Your task to perform on an android device: remove spam from my inbox in the gmail app Image 0: 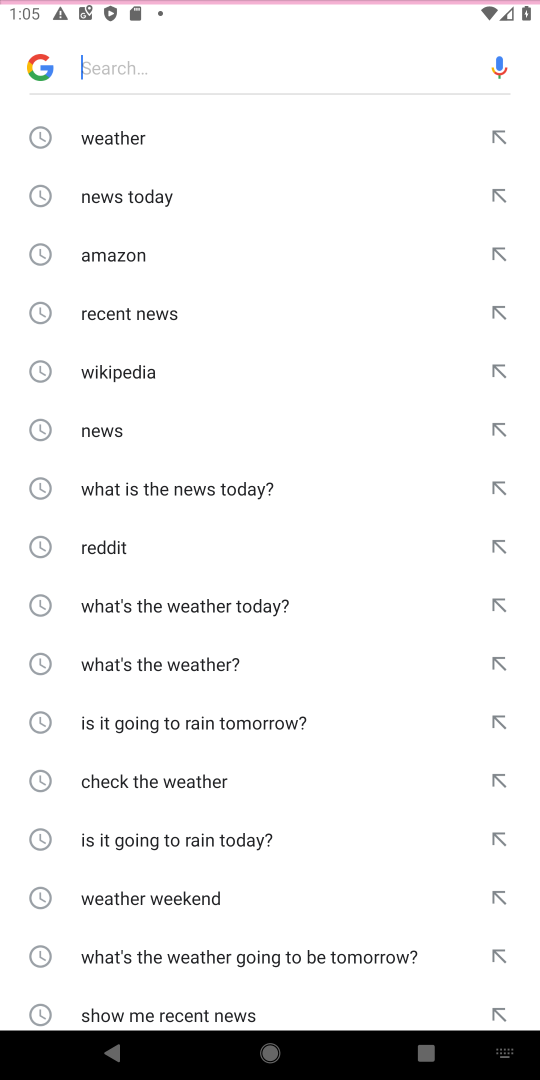
Step 0: press home button
Your task to perform on an android device: remove spam from my inbox in the gmail app Image 1: 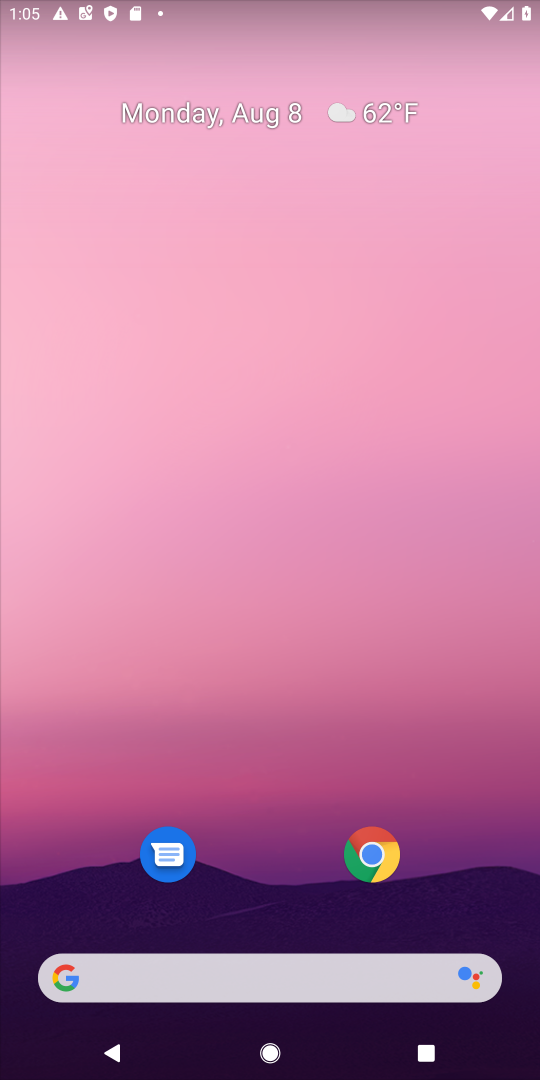
Step 1: drag from (278, 876) to (311, 44)
Your task to perform on an android device: remove spam from my inbox in the gmail app Image 2: 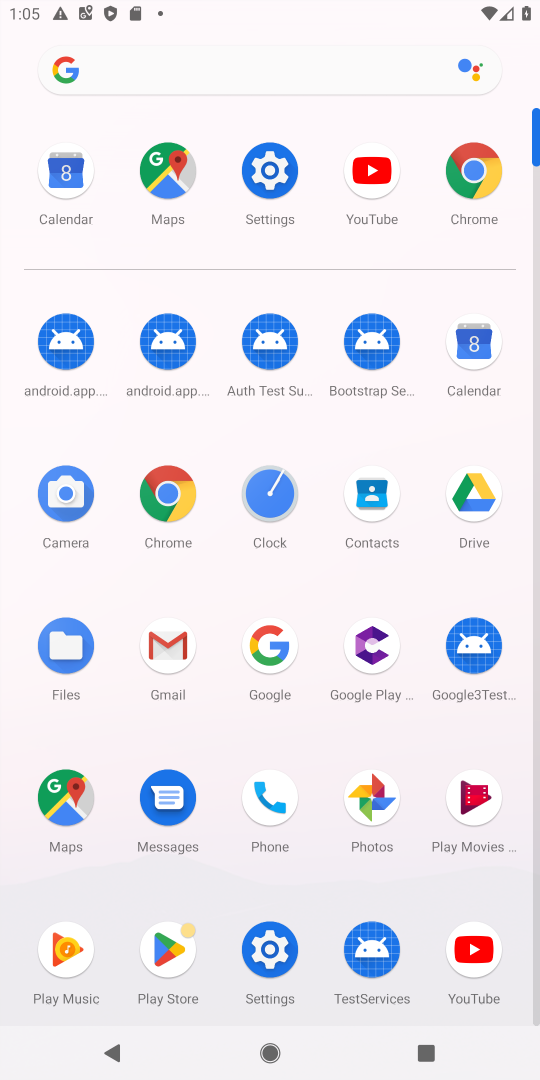
Step 2: click (163, 656)
Your task to perform on an android device: remove spam from my inbox in the gmail app Image 3: 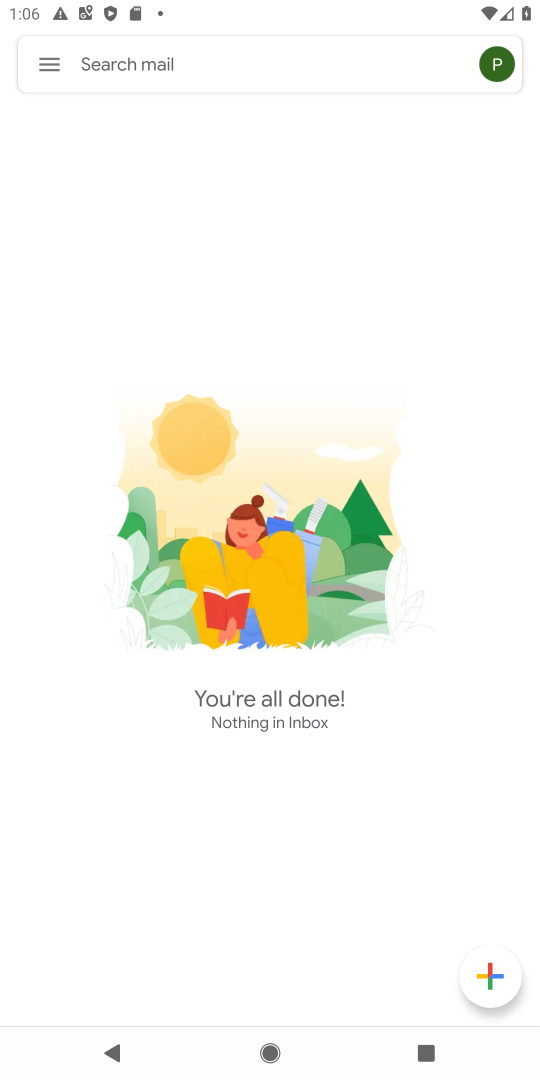
Step 3: click (499, 68)
Your task to perform on an android device: remove spam from my inbox in the gmail app Image 4: 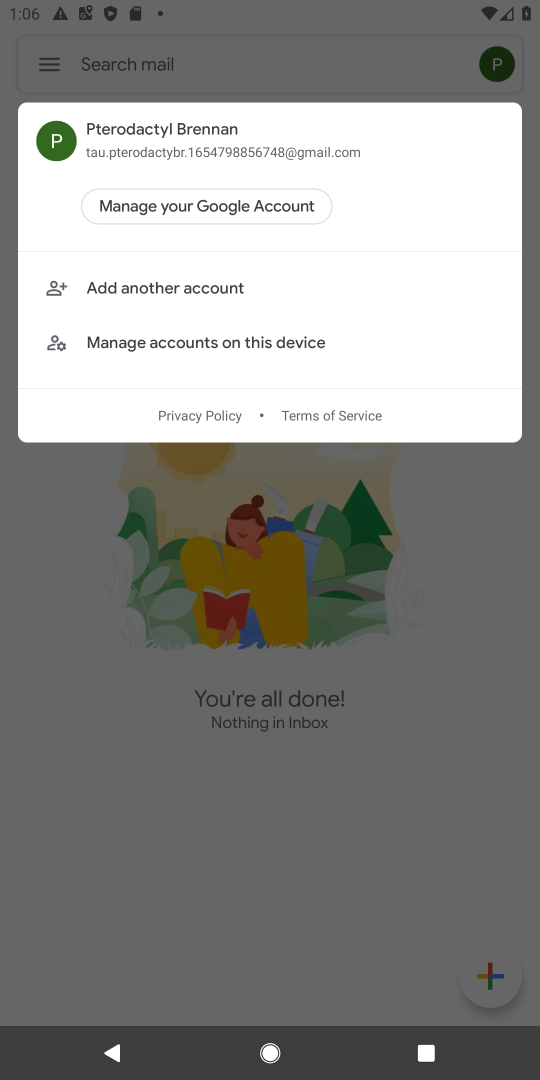
Step 4: click (63, 56)
Your task to perform on an android device: remove spam from my inbox in the gmail app Image 5: 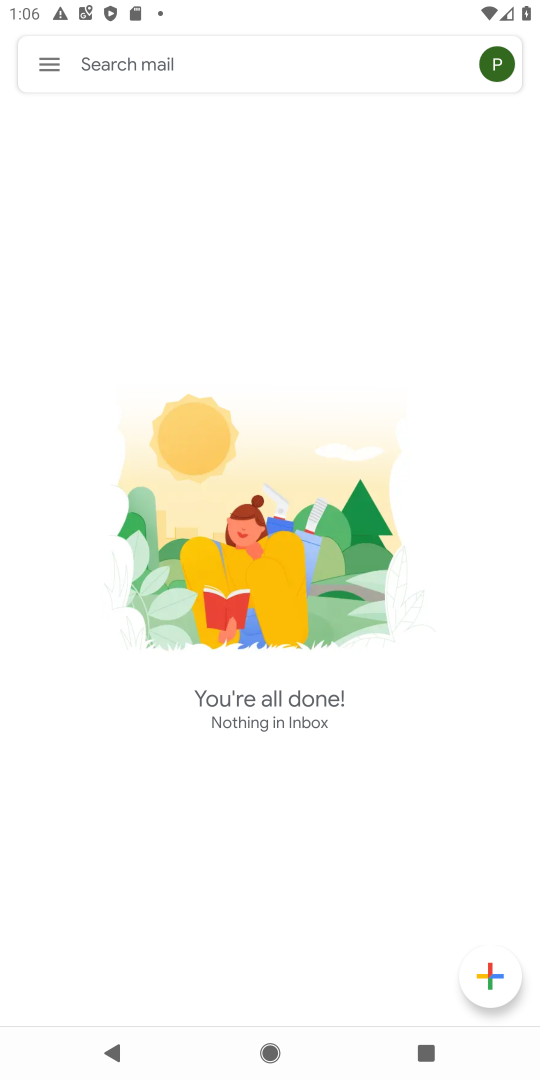
Step 5: click (44, 60)
Your task to perform on an android device: remove spam from my inbox in the gmail app Image 6: 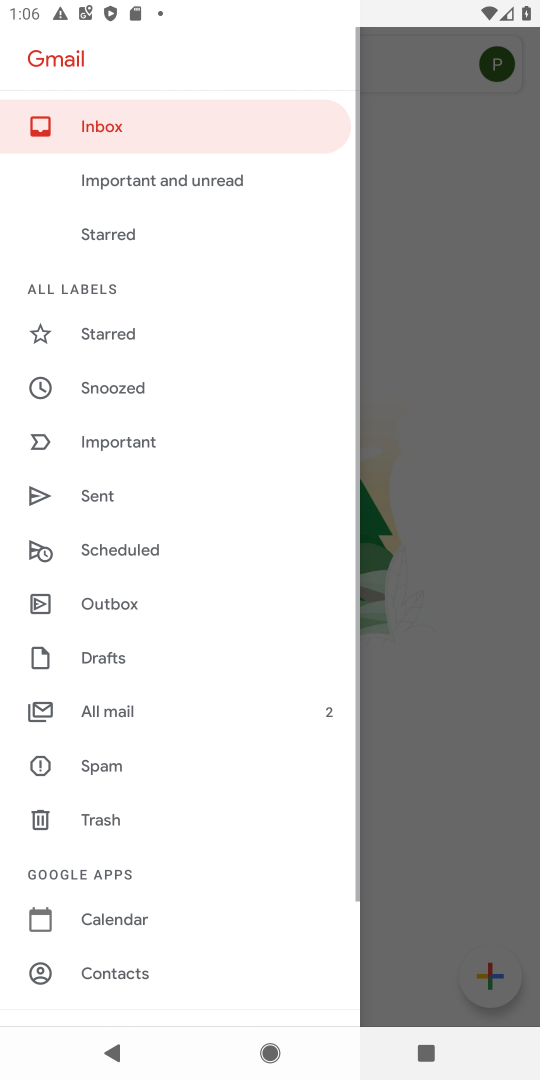
Step 6: drag from (45, 61) to (125, 598)
Your task to perform on an android device: remove spam from my inbox in the gmail app Image 7: 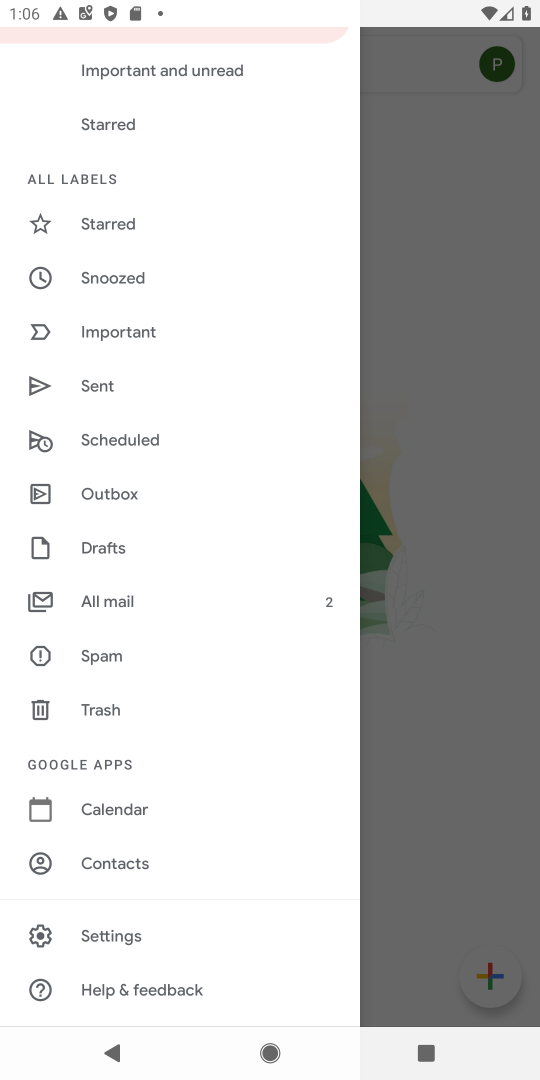
Step 7: click (125, 598)
Your task to perform on an android device: remove spam from my inbox in the gmail app Image 8: 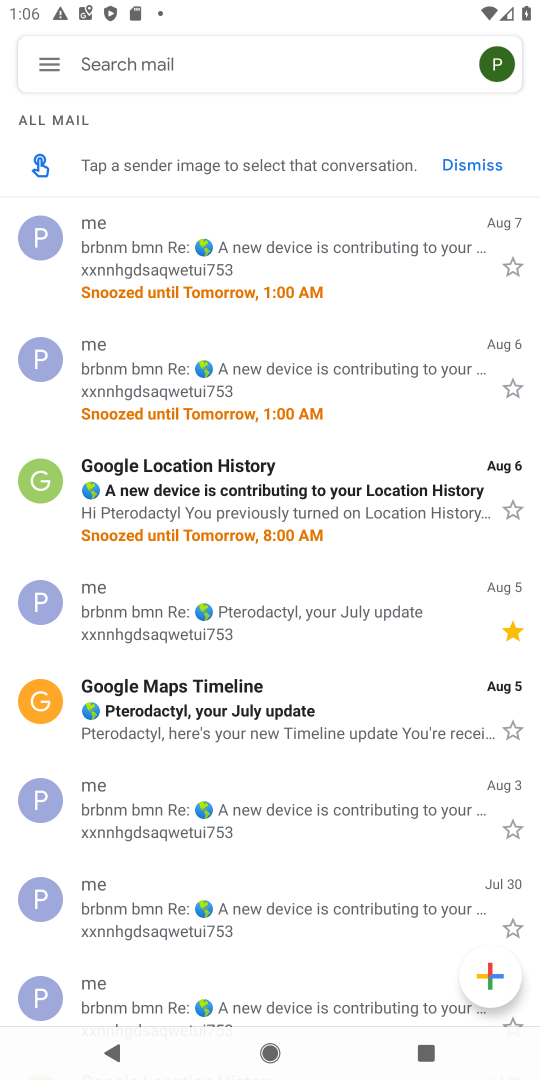
Step 8: click (274, 266)
Your task to perform on an android device: remove spam from my inbox in the gmail app Image 9: 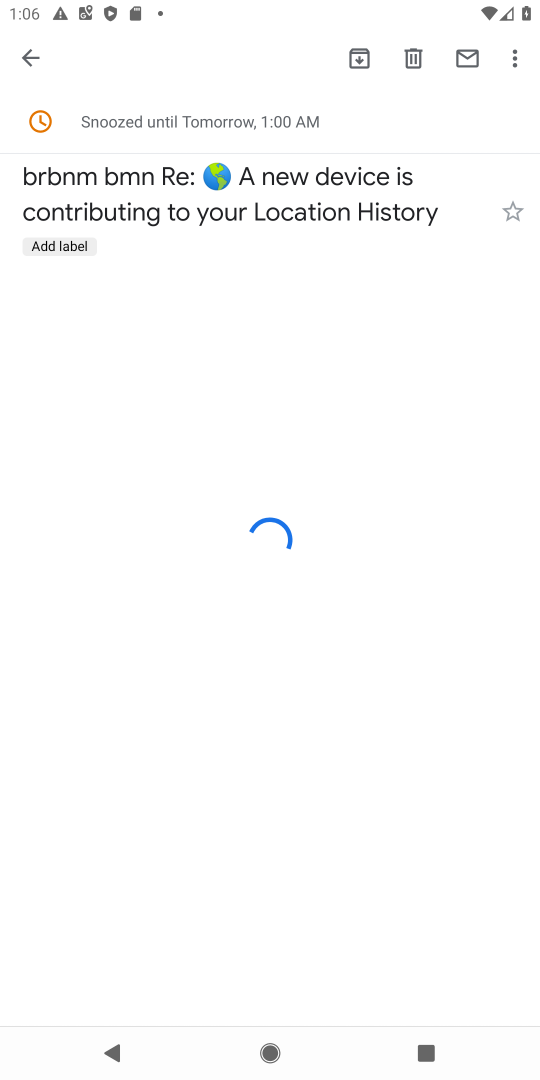
Step 9: click (523, 70)
Your task to perform on an android device: remove spam from my inbox in the gmail app Image 10: 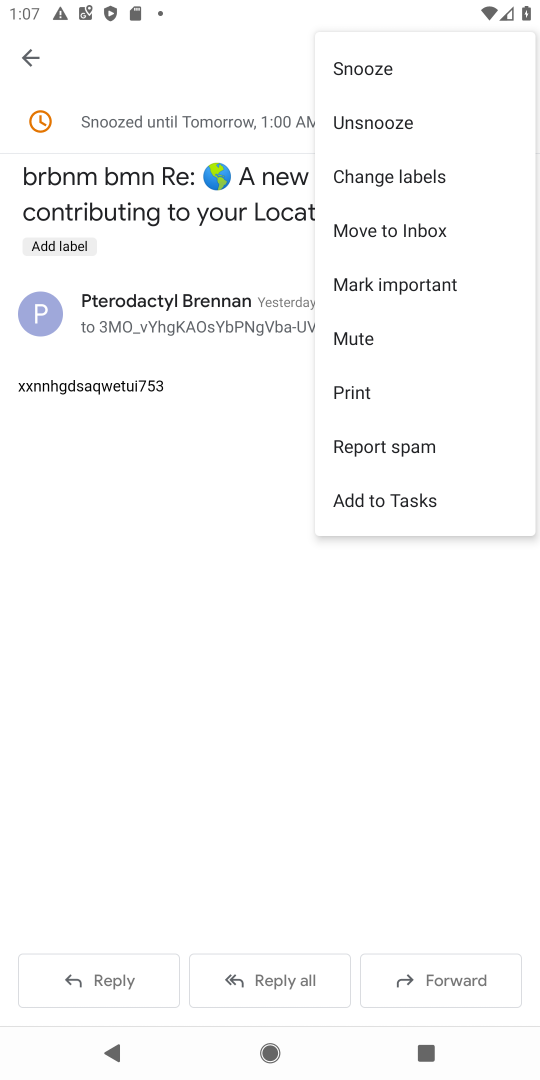
Step 10: click (375, 449)
Your task to perform on an android device: remove spam from my inbox in the gmail app Image 11: 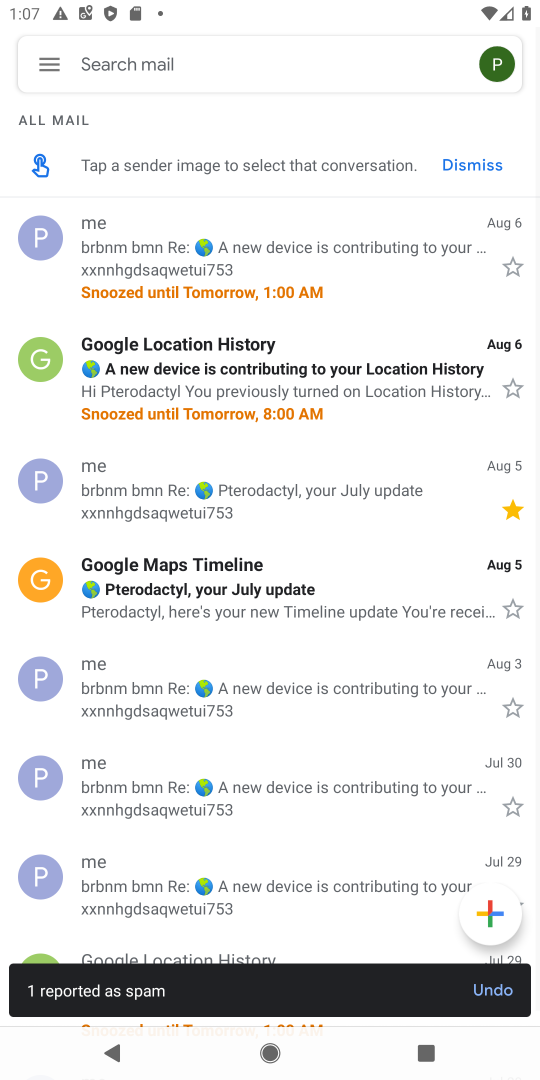
Step 11: task complete